Your task to perform on an android device: make emails show in primary in the gmail app Image 0: 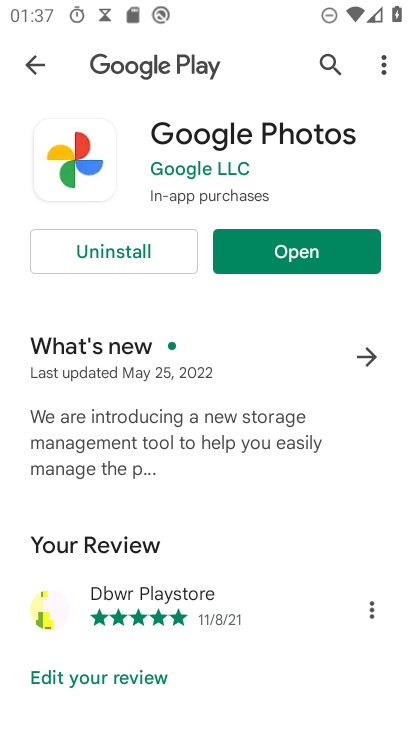
Step 0: press home button
Your task to perform on an android device: make emails show in primary in the gmail app Image 1: 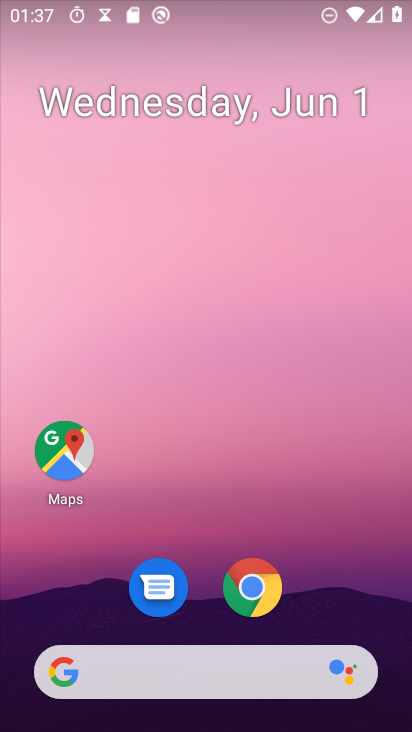
Step 1: drag from (337, 613) to (329, 11)
Your task to perform on an android device: make emails show in primary in the gmail app Image 2: 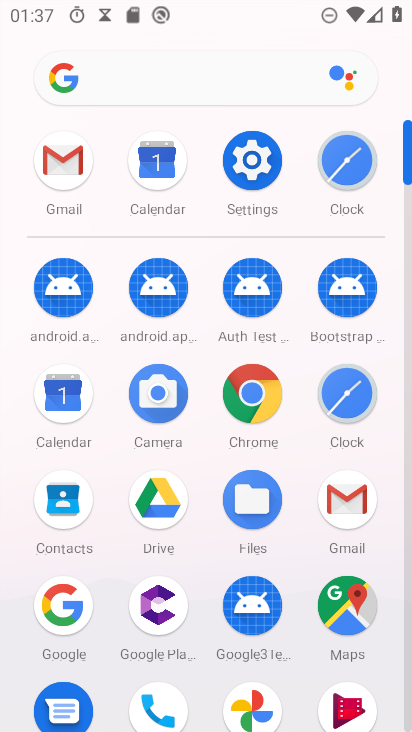
Step 2: click (347, 503)
Your task to perform on an android device: make emails show in primary in the gmail app Image 3: 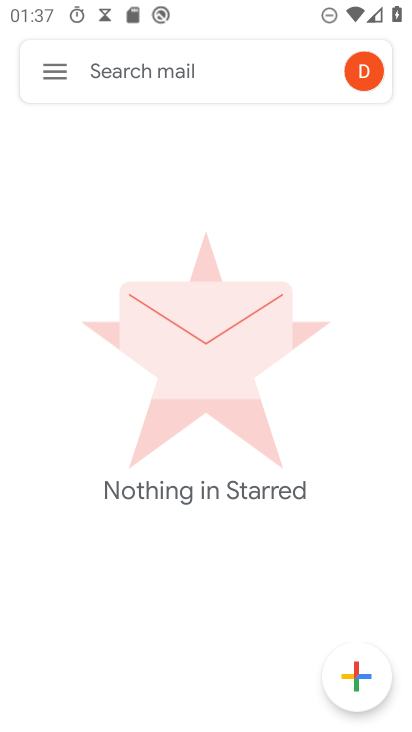
Step 3: click (60, 76)
Your task to perform on an android device: make emails show in primary in the gmail app Image 4: 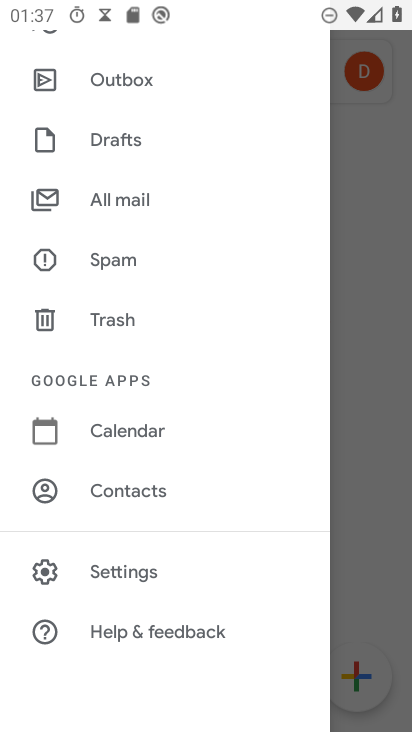
Step 4: click (147, 578)
Your task to perform on an android device: make emails show in primary in the gmail app Image 5: 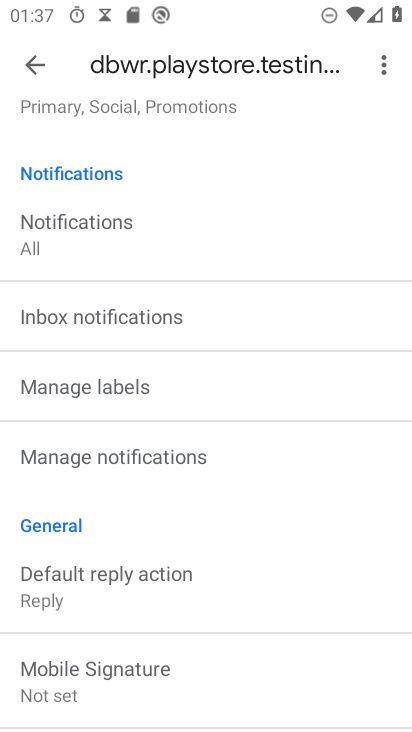
Step 5: drag from (212, 182) to (298, 523)
Your task to perform on an android device: make emails show in primary in the gmail app Image 6: 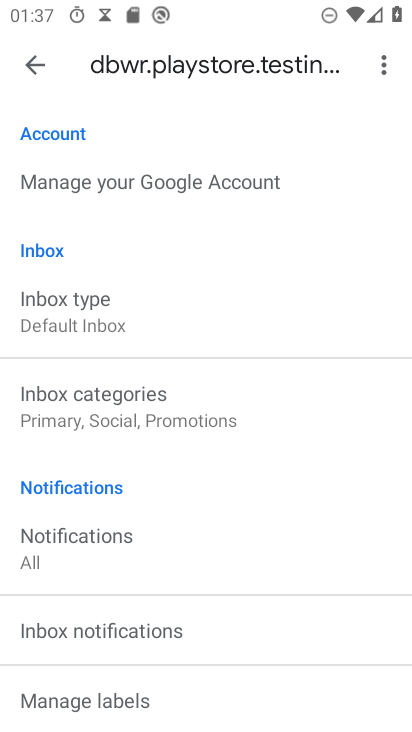
Step 6: click (109, 303)
Your task to perform on an android device: make emails show in primary in the gmail app Image 7: 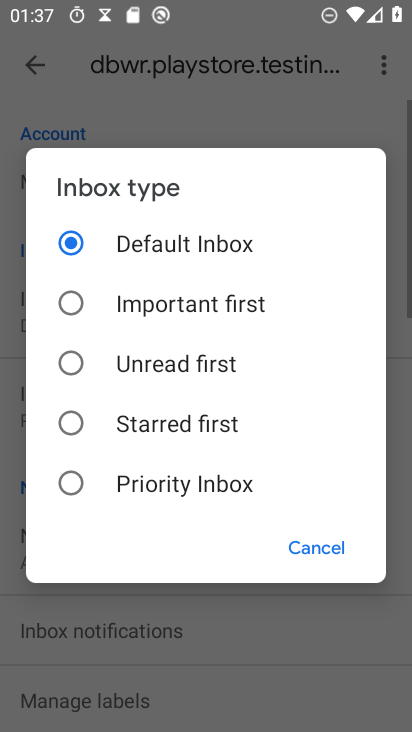
Step 7: click (166, 243)
Your task to perform on an android device: make emails show in primary in the gmail app Image 8: 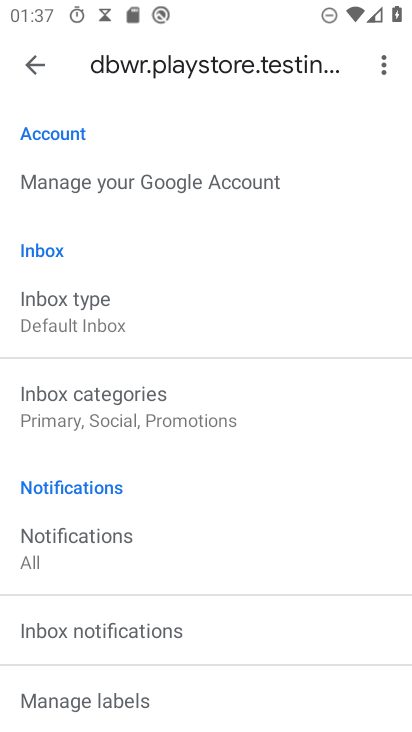
Step 8: task complete